Your task to perform on an android device: open app "Chime – Mobile Banking" (install if not already installed) and go to login screen Image 0: 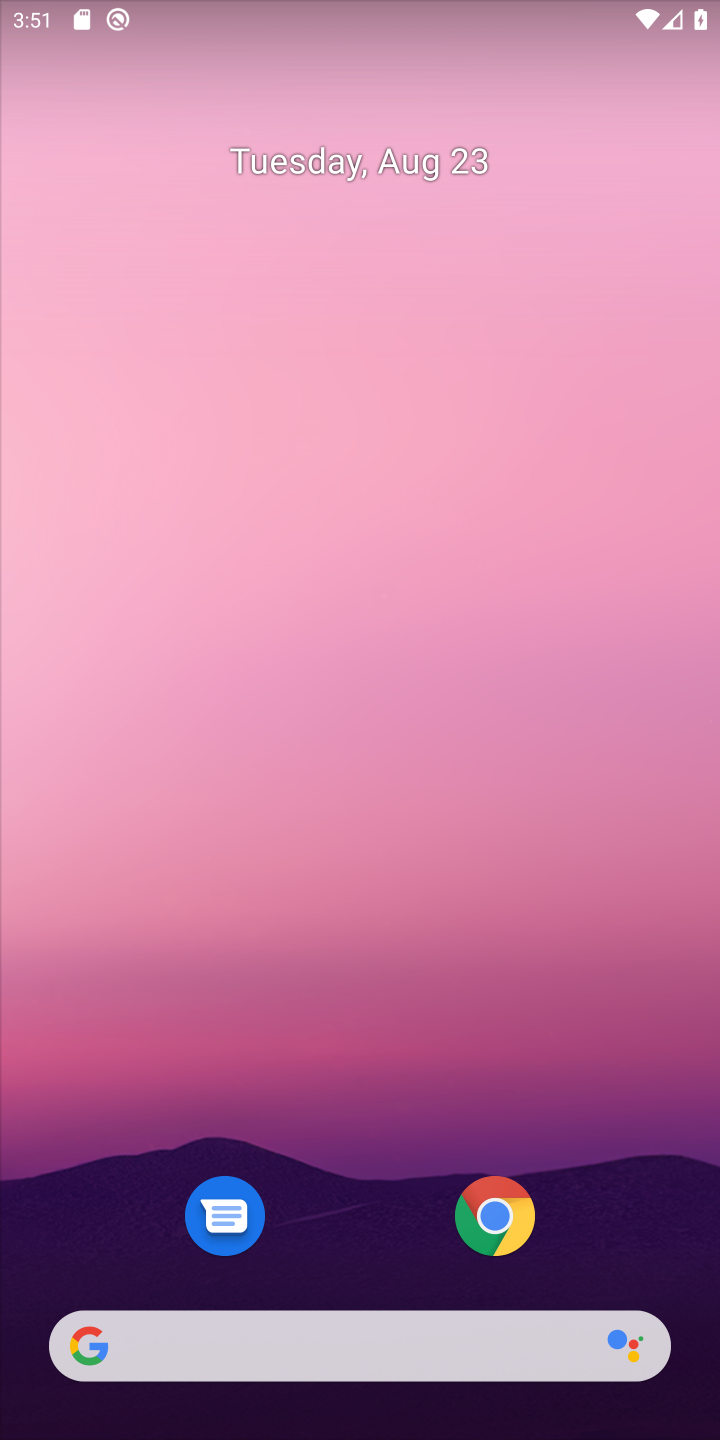
Step 0: drag from (329, 897) to (412, 9)
Your task to perform on an android device: open app "Chime – Mobile Banking" (install if not already installed) and go to login screen Image 1: 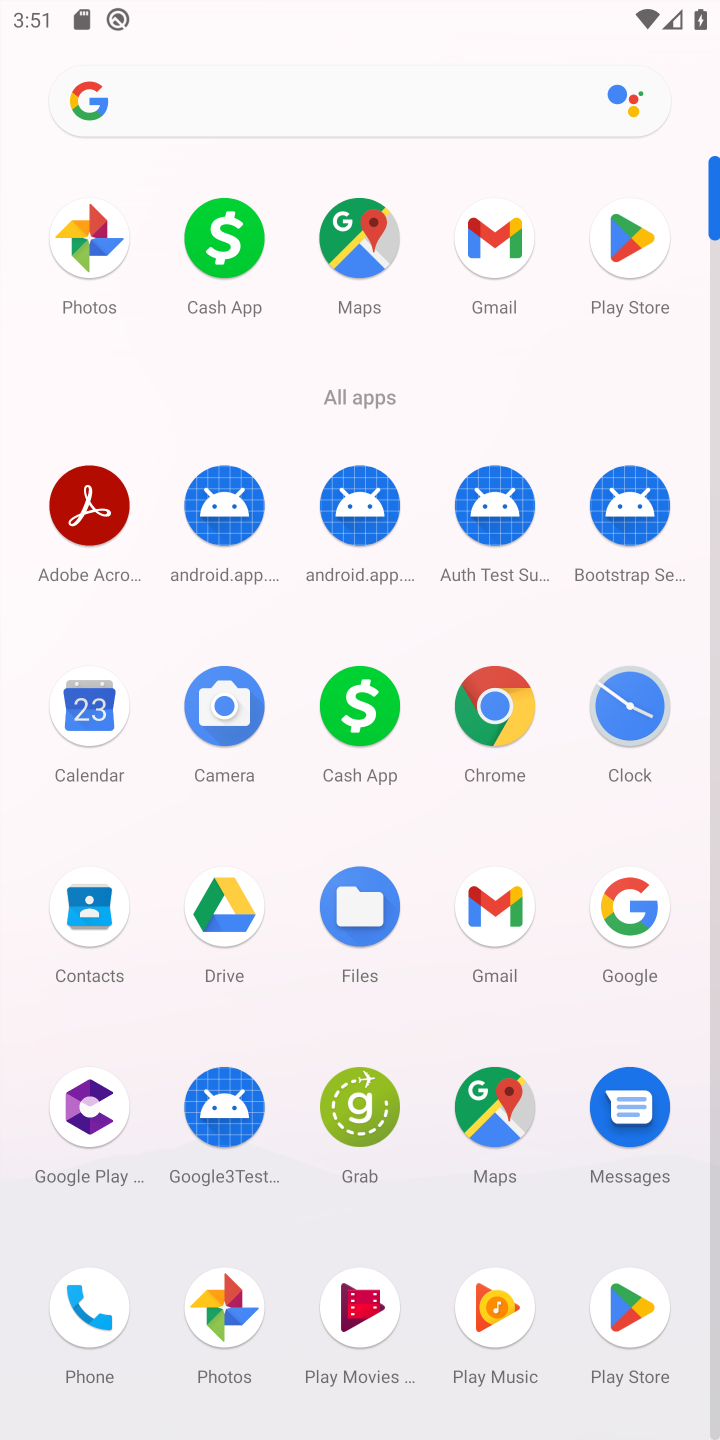
Step 1: click (637, 242)
Your task to perform on an android device: open app "Chime – Mobile Banking" (install if not already installed) and go to login screen Image 2: 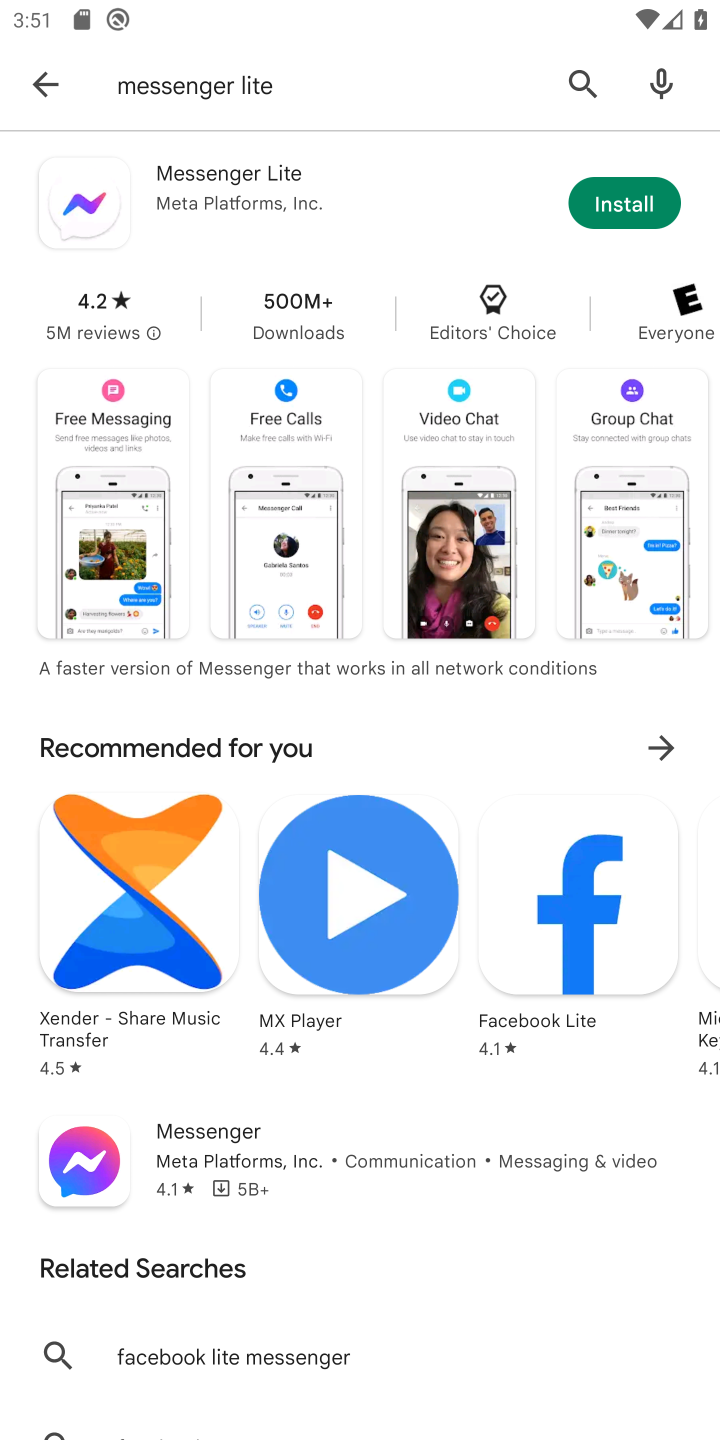
Step 2: click (222, 83)
Your task to perform on an android device: open app "Chime – Mobile Banking" (install if not already installed) and go to login screen Image 3: 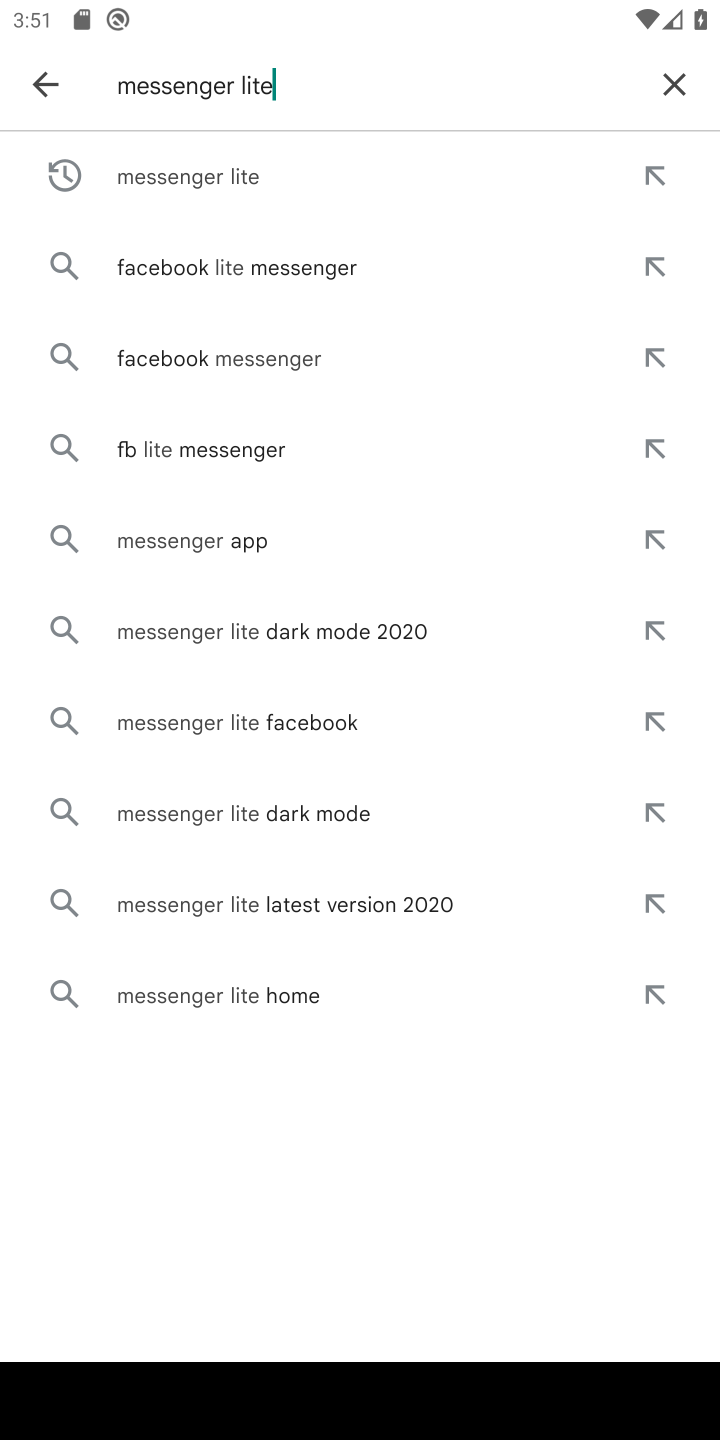
Step 3: click (663, 72)
Your task to perform on an android device: open app "Chime – Mobile Banking" (install if not already installed) and go to login screen Image 4: 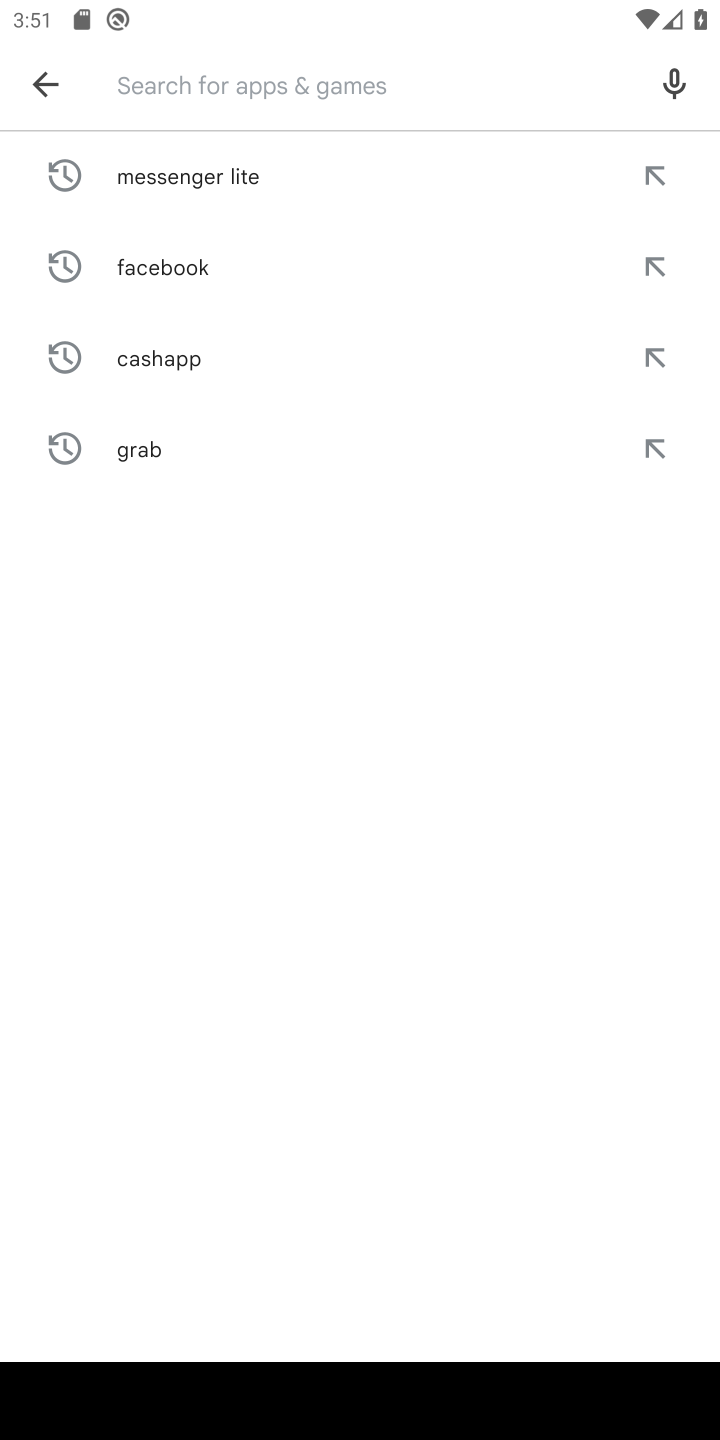
Step 4: type "Chime"
Your task to perform on an android device: open app "Chime – Mobile Banking" (install if not already installed) and go to login screen Image 5: 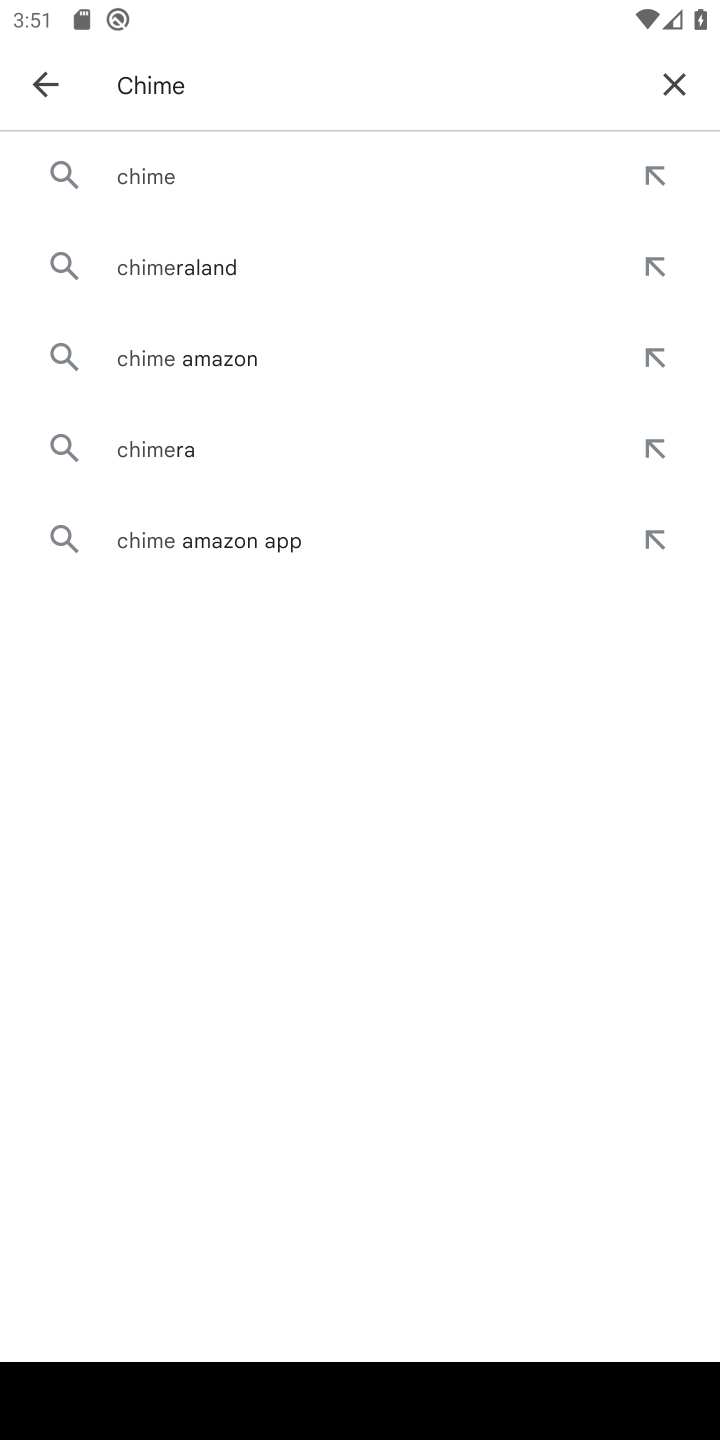
Step 5: click (159, 159)
Your task to perform on an android device: open app "Chime – Mobile Banking" (install if not already installed) and go to login screen Image 6: 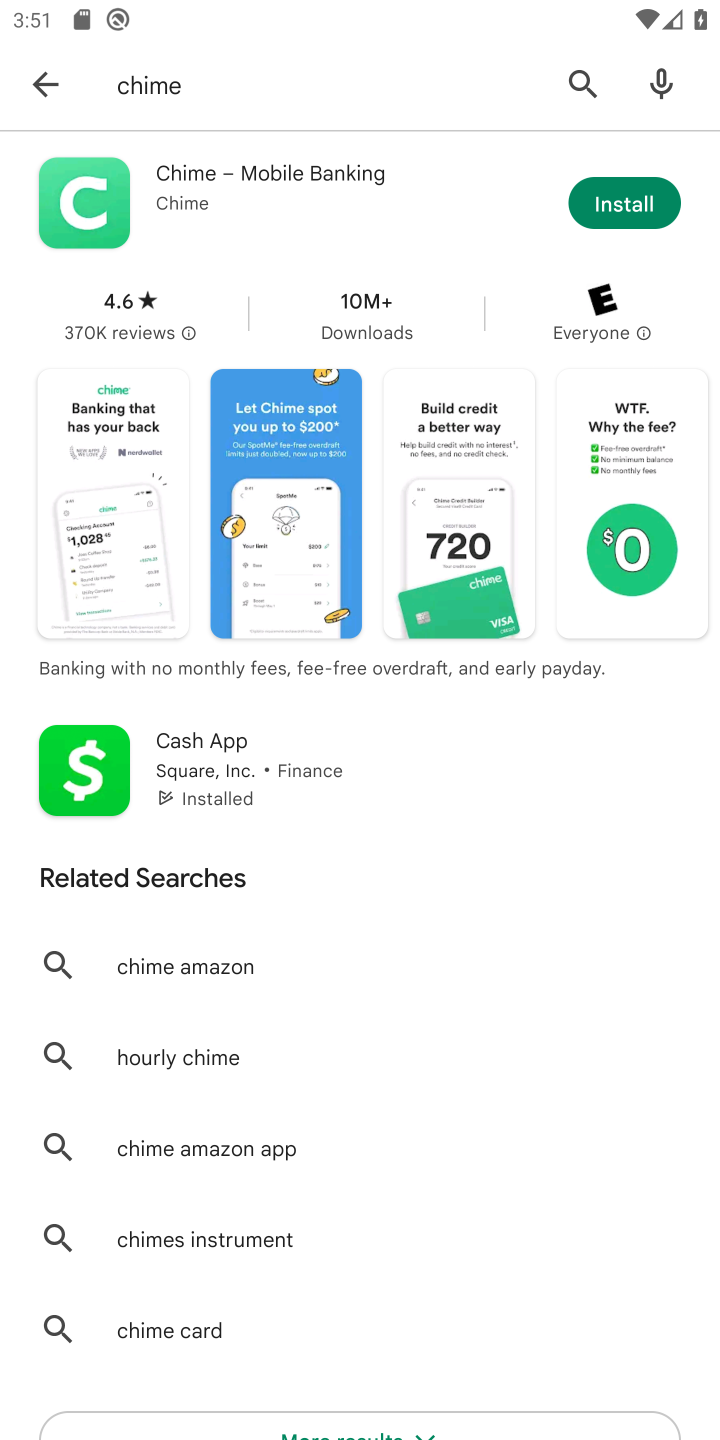
Step 6: click (625, 200)
Your task to perform on an android device: open app "Chime – Mobile Banking" (install if not already installed) and go to login screen Image 7: 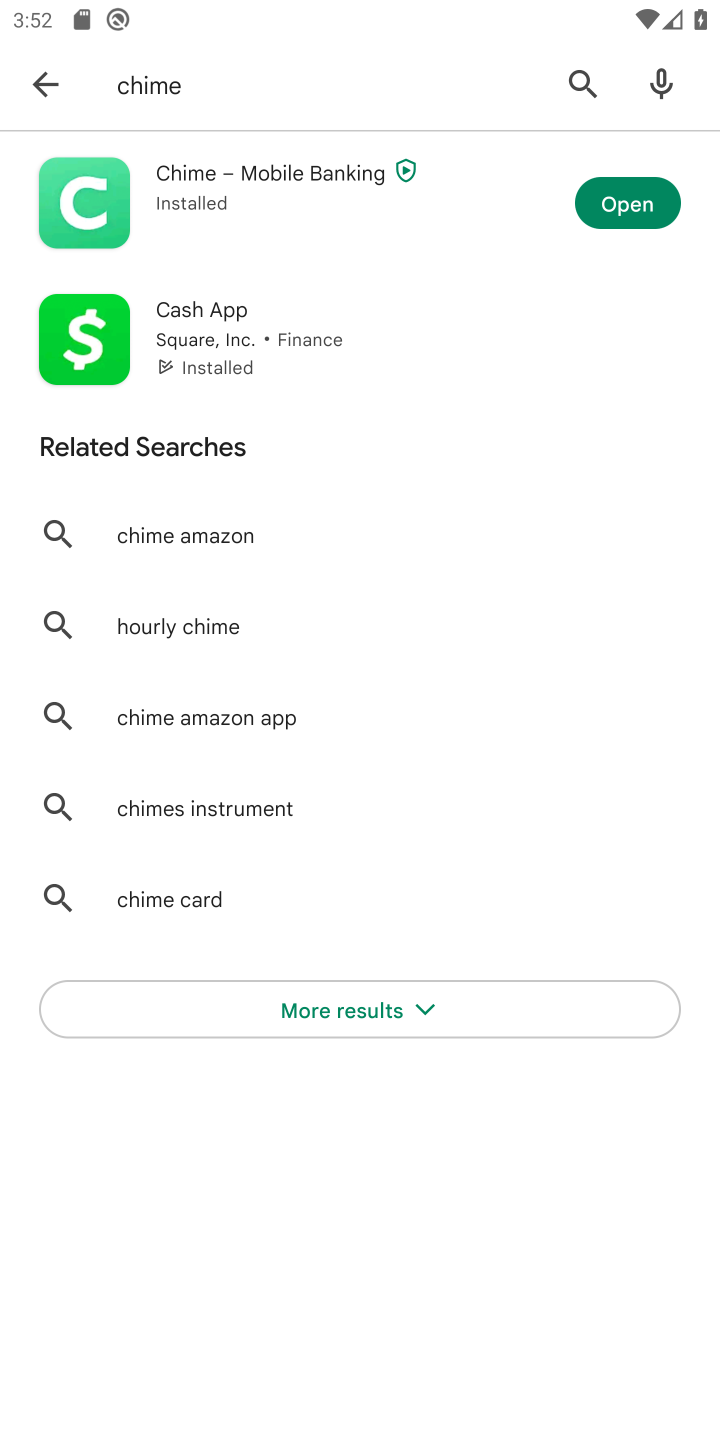
Step 7: click (602, 199)
Your task to perform on an android device: open app "Chime – Mobile Banking" (install if not already installed) and go to login screen Image 8: 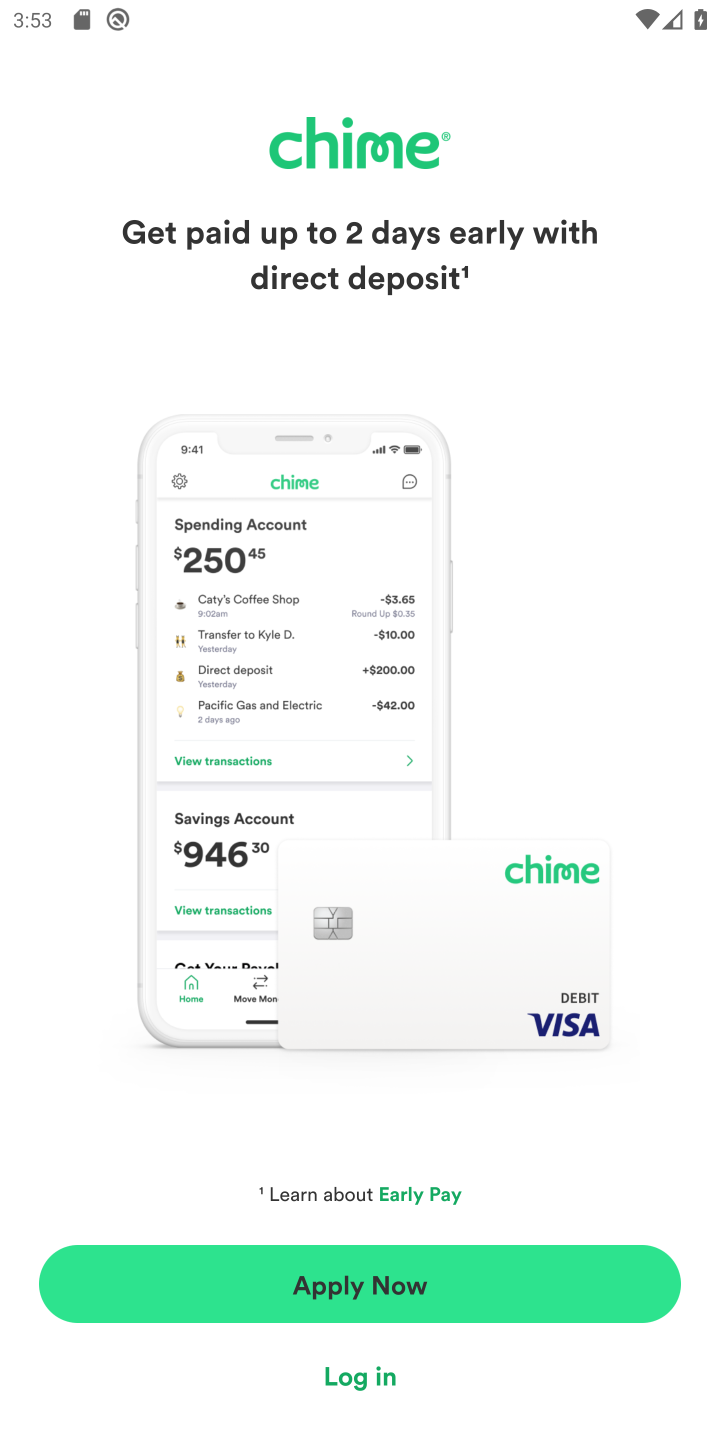
Step 8: click (352, 1372)
Your task to perform on an android device: open app "Chime – Mobile Banking" (install if not already installed) and go to login screen Image 9: 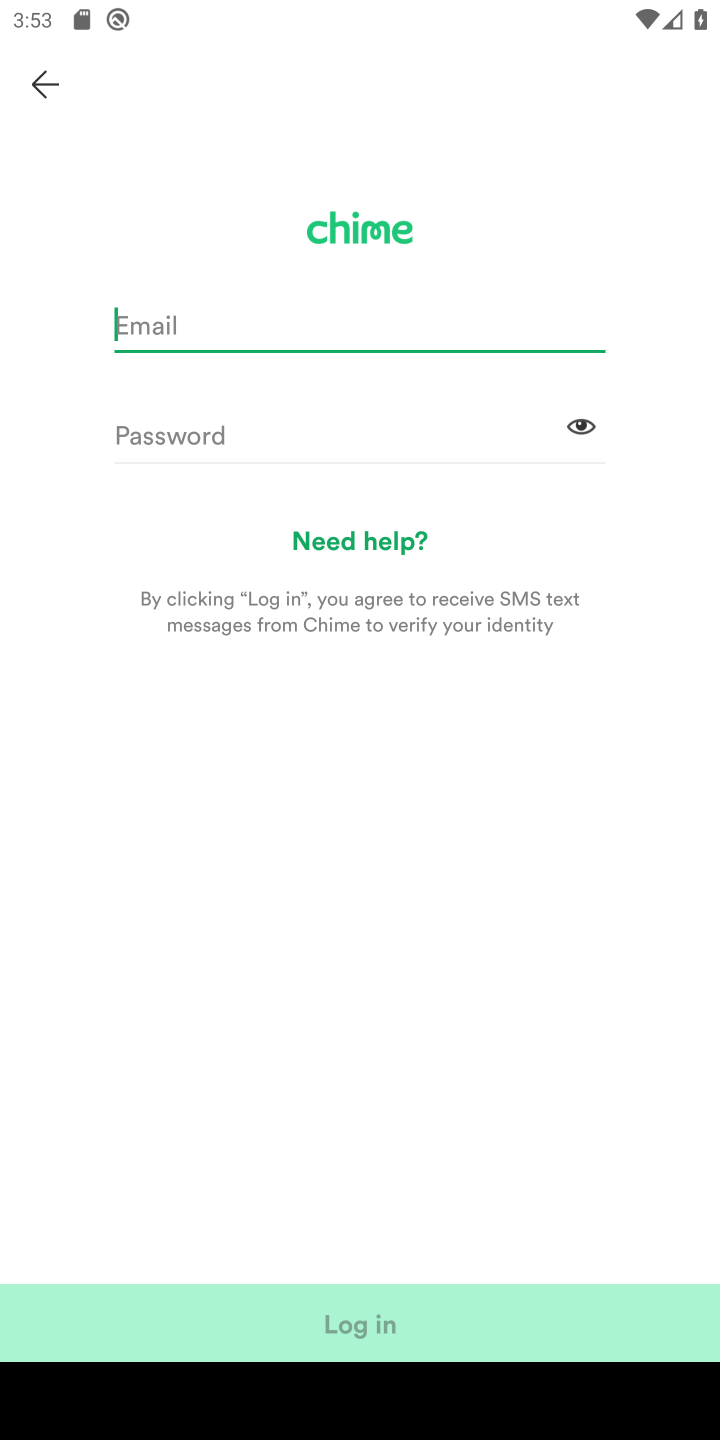
Step 9: task complete